Your task to perform on an android device: star an email in the gmail app Image 0: 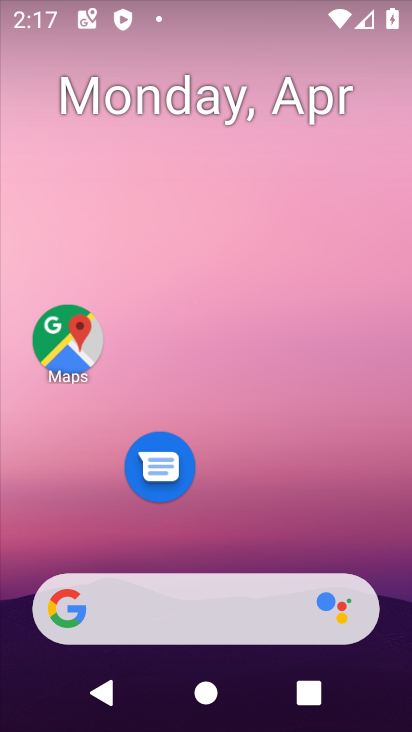
Step 0: drag from (243, 449) to (303, 24)
Your task to perform on an android device: star an email in the gmail app Image 1: 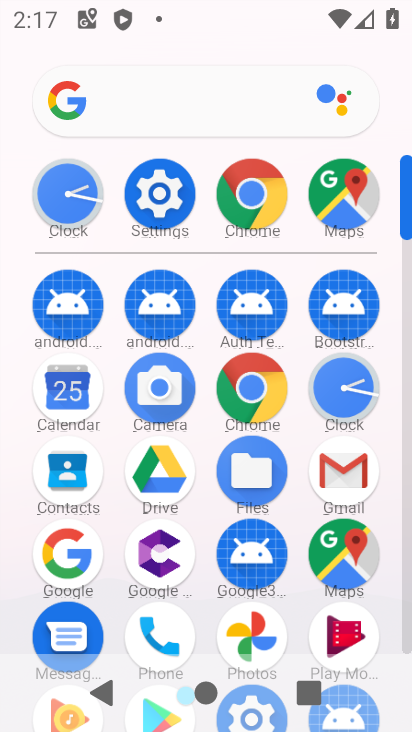
Step 1: click (366, 469)
Your task to perform on an android device: star an email in the gmail app Image 2: 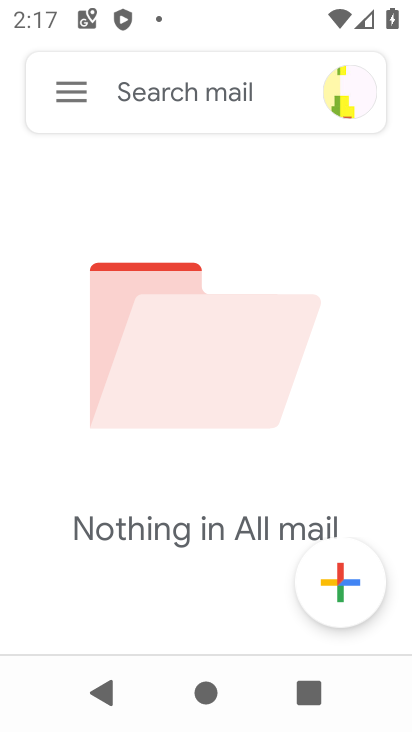
Step 2: click (78, 109)
Your task to perform on an android device: star an email in the gmail app Image 3: 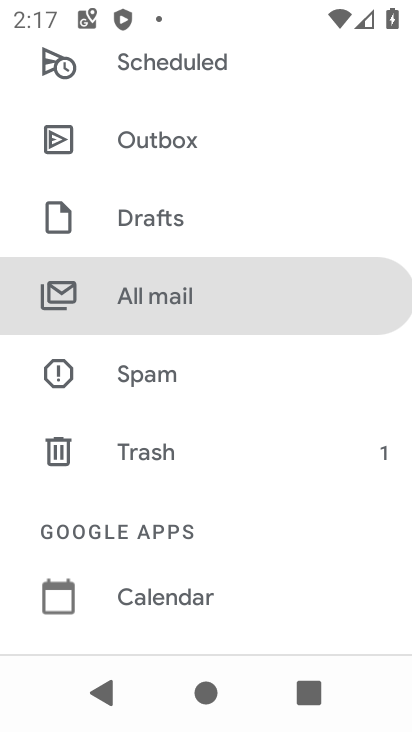
Step 3: click (212, 309)
Your task to perform on an android device: star an email in the gmail app Image 4: 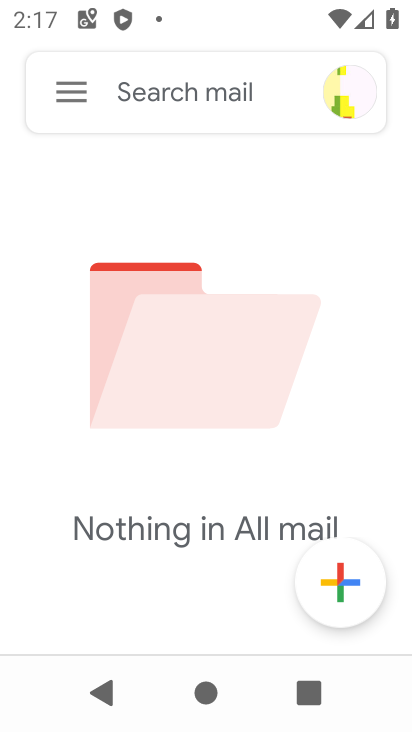
Step 4: task complete